Your task to perform on an android device: Open the map Image 0: 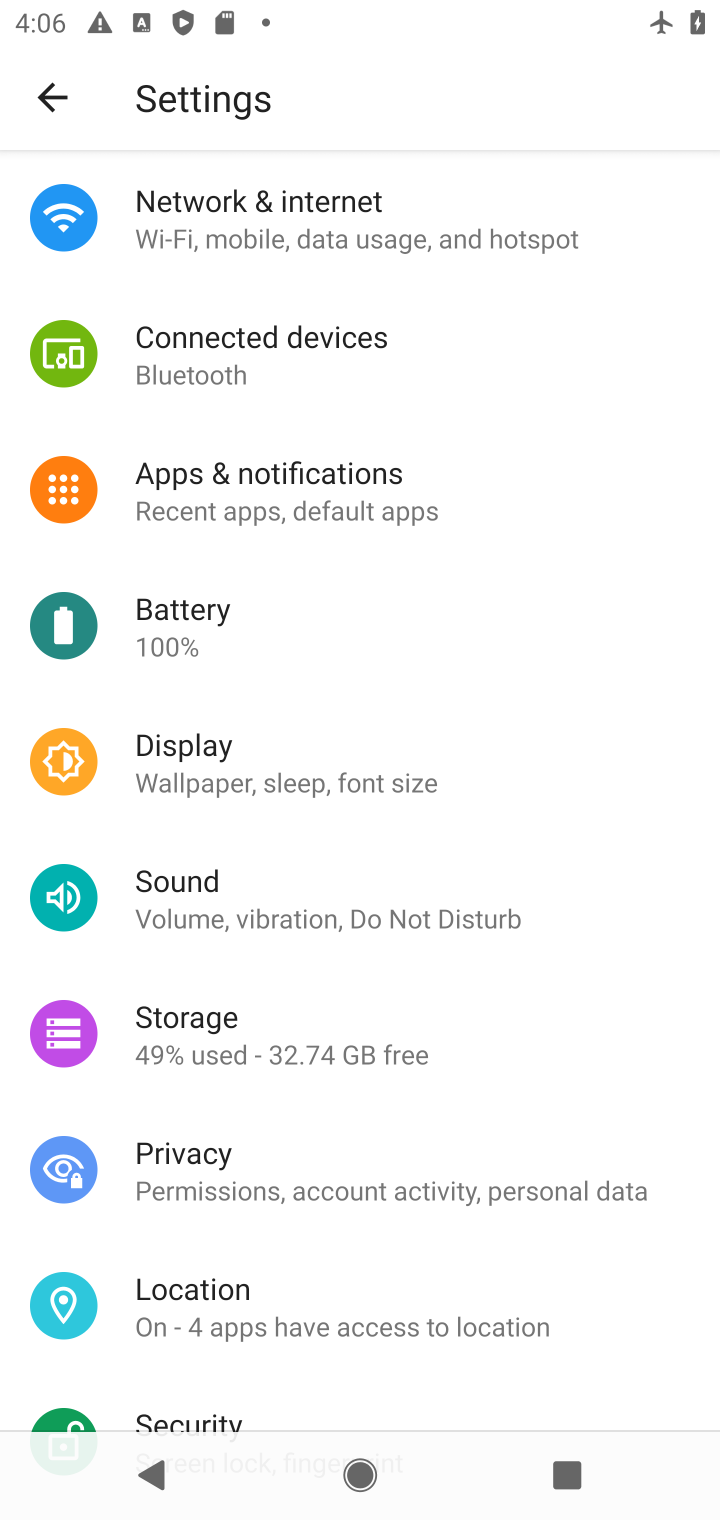
Step 0: press home button
Your task to perform on an android device: Open the map Image 1: 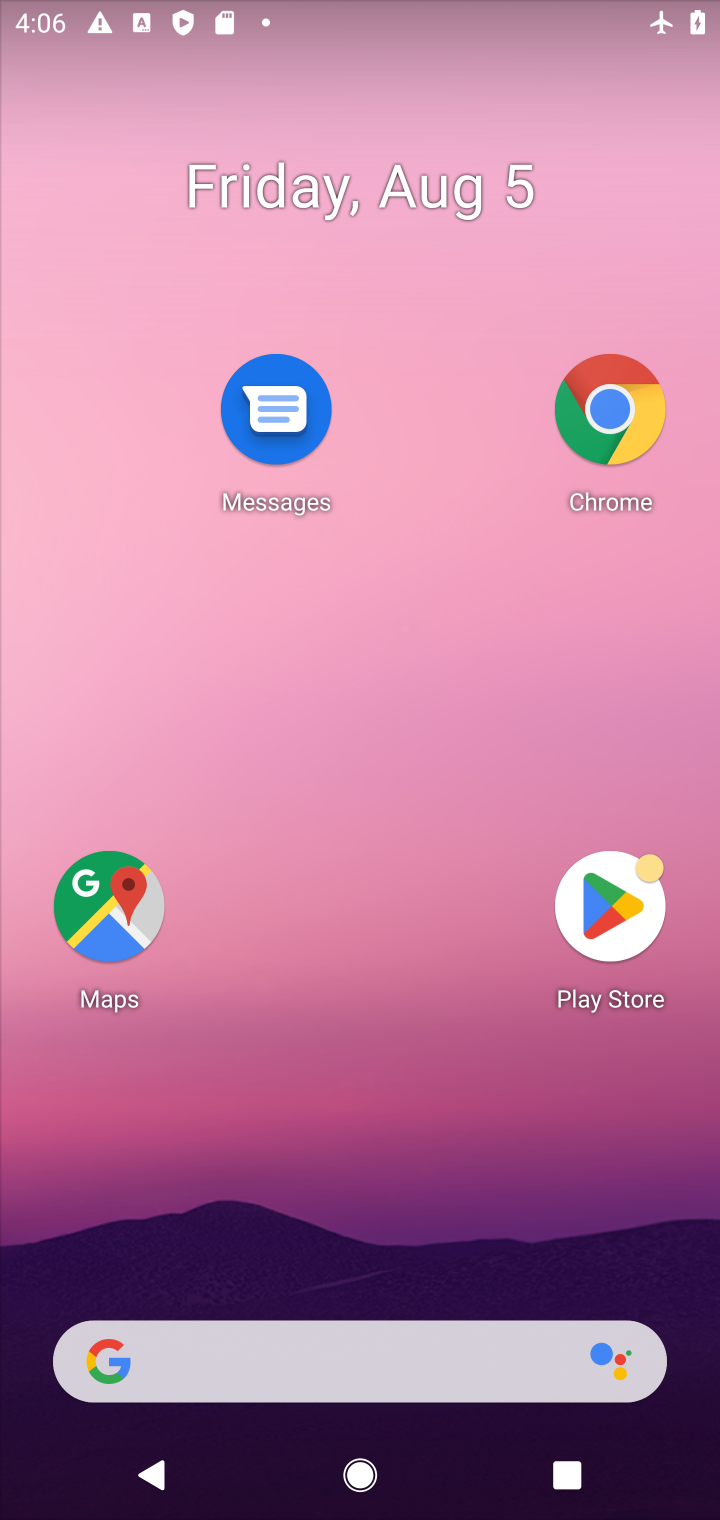
Step 1: click (131, 909)
Your task to perform on an android device: Open the map Image 2: 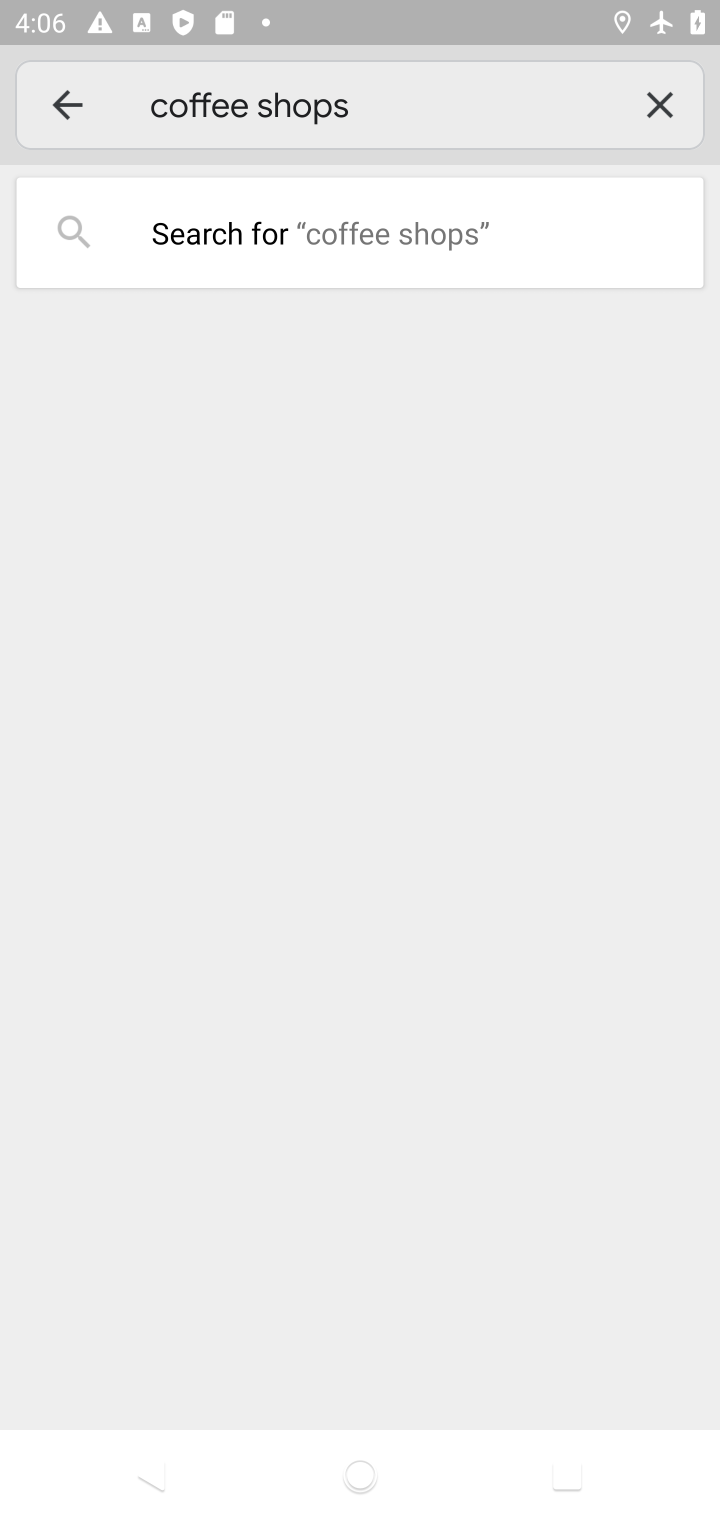
Step 2: task complete